Your task to perform on an android device: clear all cookies in the chrome app Image 0: 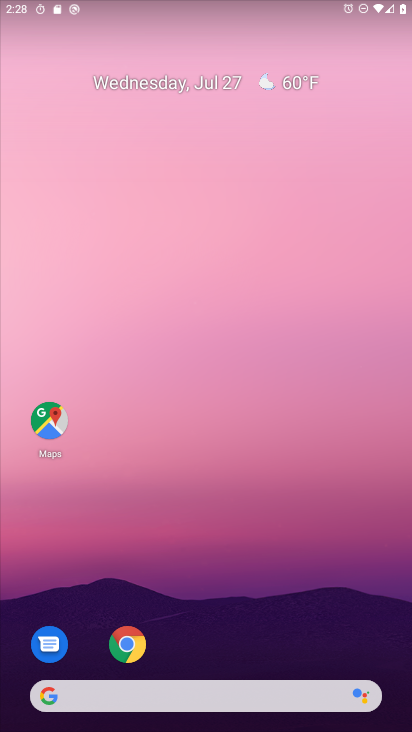
Step 0: drag from (251, 556) to (257, 111)
Your task to perform on an android device: clear all cookies in the chrome app Image 1: 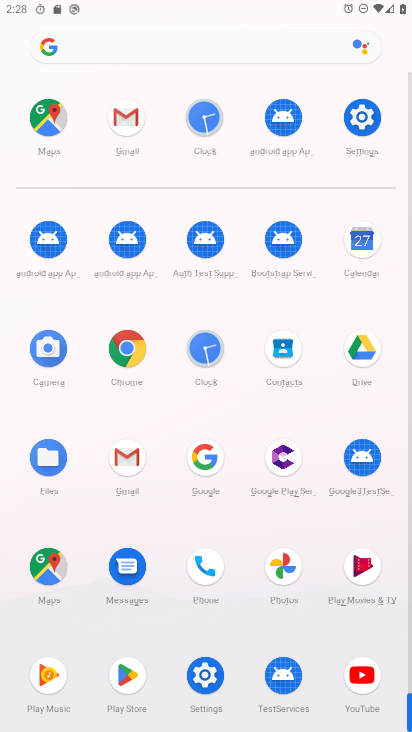
Step 1: click (113, 346)
Your task to perform on an android device: clear all cookies in the chrome app Image 2: 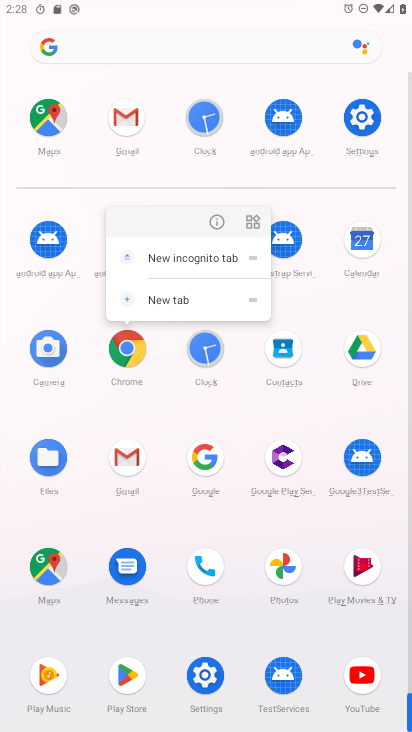
Step 2: click (211, 220)
Your task to perform on an android device: clear all cookies in the chrome app Image 3: 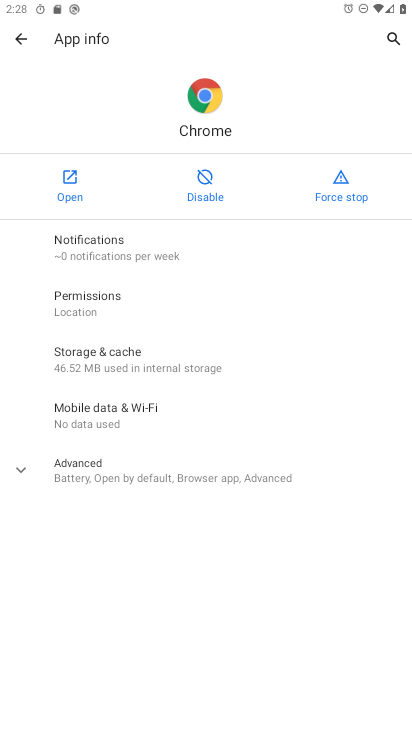
Step 3: click (76, 192)
Your task to perform on an android device: clear all cookies in the chrome app Image 4: 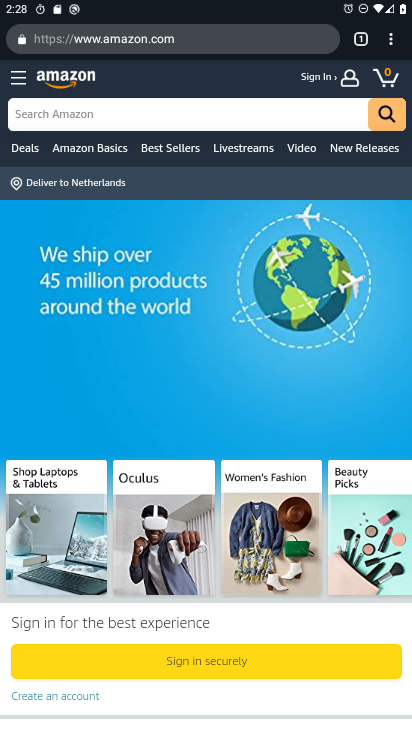
Step 4: drag from (384, 36) to (288, 521)
Your task to perform on an android device: clear all cookies in the chrome app Image 5: 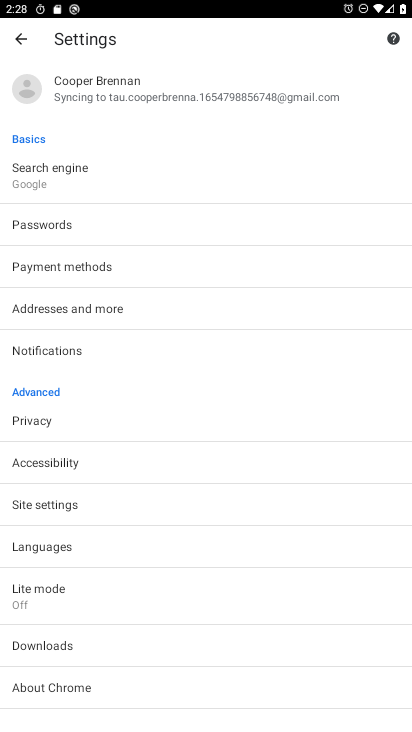
Step 5: click (19, 25)
Your task to perform on an android device: clear all cookies in the chrome app Image 6: 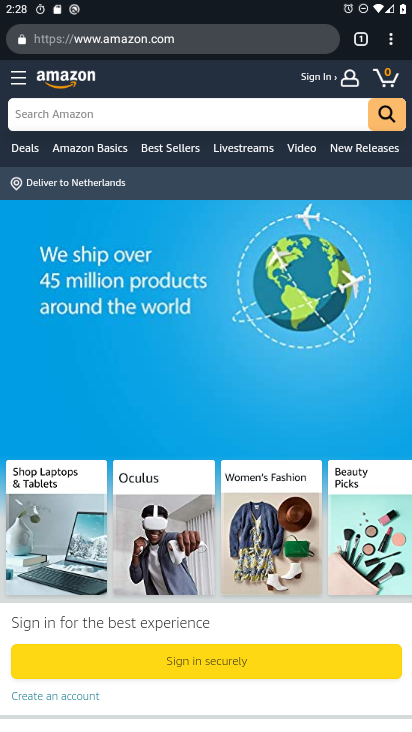
Step 6: drag from (399, 37) to (256, 275)
Your task to perform on an android device: clear all cookies in the chrome app Image 7: 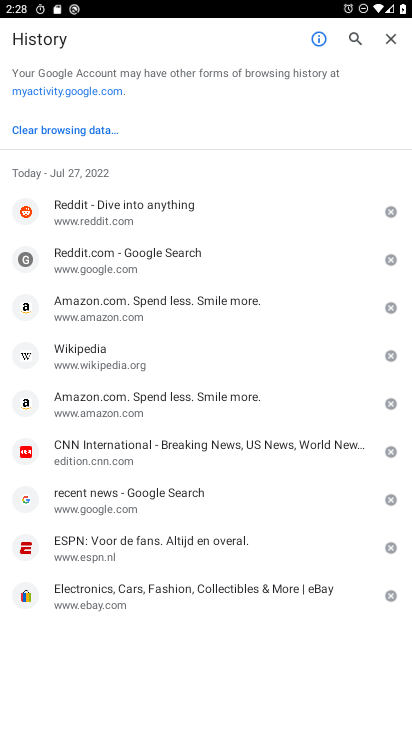
Step 7: drag from (158, 559) to (192, 319)
Your task to perform on an android device: clear all cookies in the chrome app Image 8: 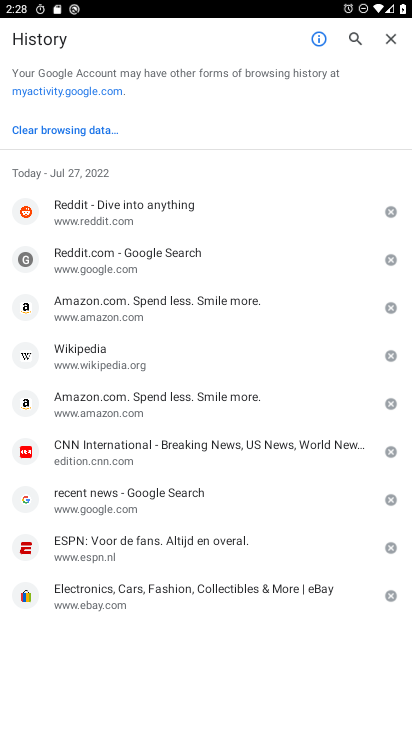
Step 8: click (56, 129)
Your task to perform on an android device: clear all cookies in the chrome app Image 9: 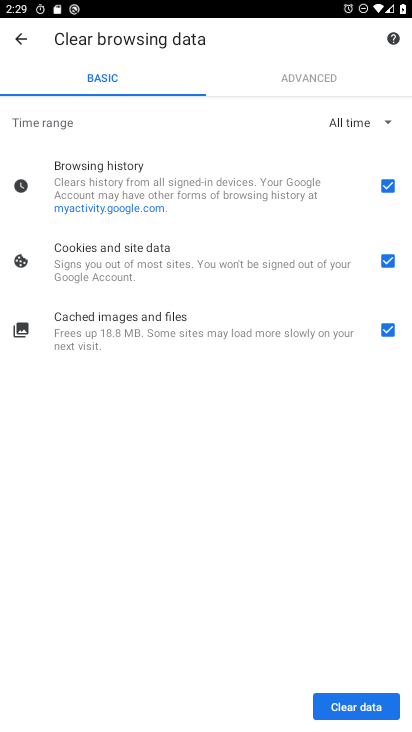
Step 9: click (342, 701)
Your task to perform on an android device: clear all cookies in the chrome app Image 10: 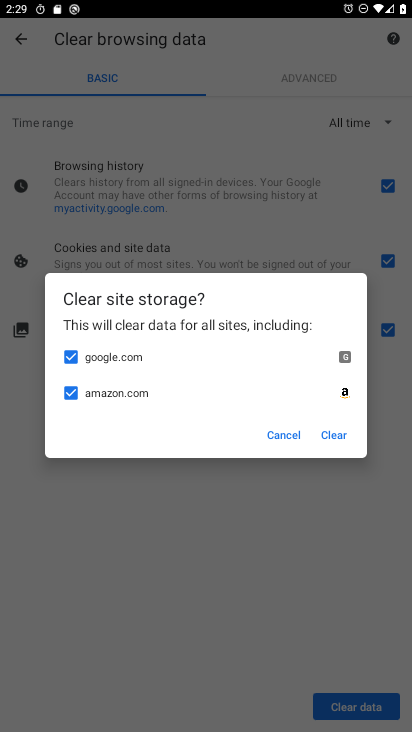
Step 10: click (296, 438)
Your task to perform on an android device: clear all cookies in the chrome app Image 11: 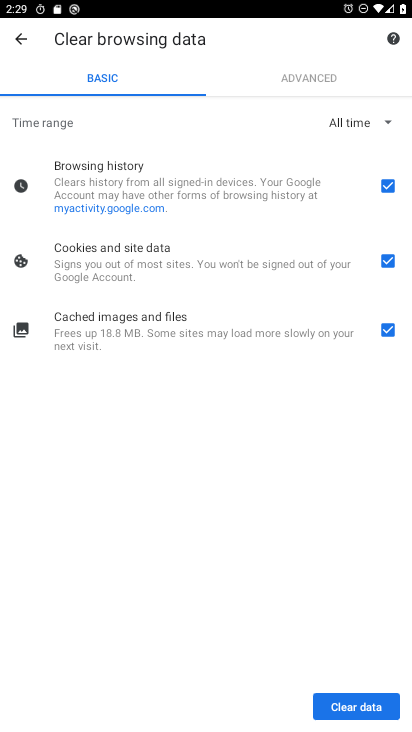
Step 11: click (393, 175)
Your task to perform on an android device: clear all cookies in the chrome app Image 12: 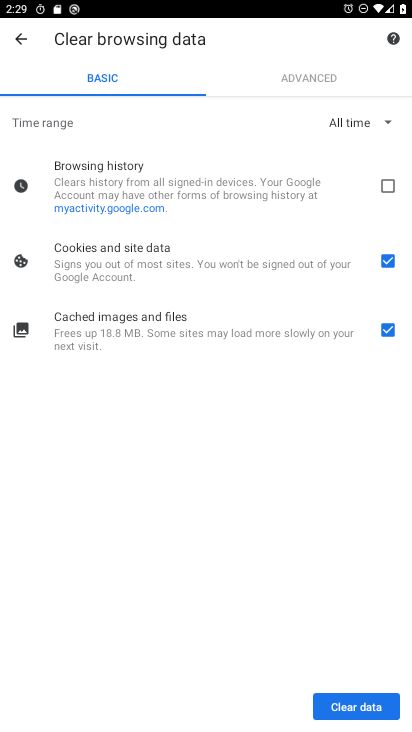
Step 12: click (385, 336)
Your task to perform on an android device: clear all cookies in the chrome app Image 13: 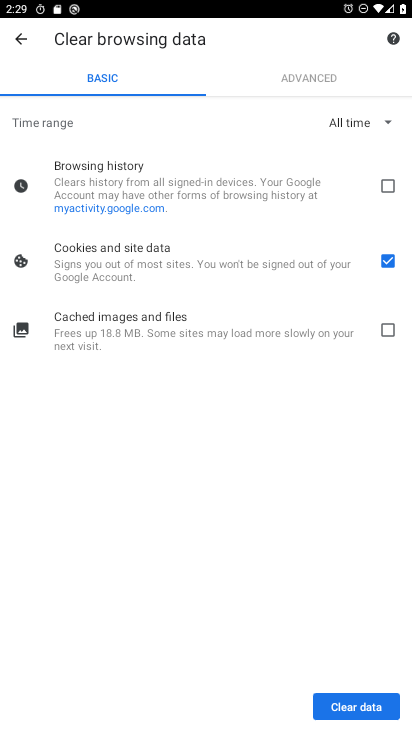
Step 13: click (356, 707)
Your task to perform on an android device: clear all cookies in the chrome app Image 14: 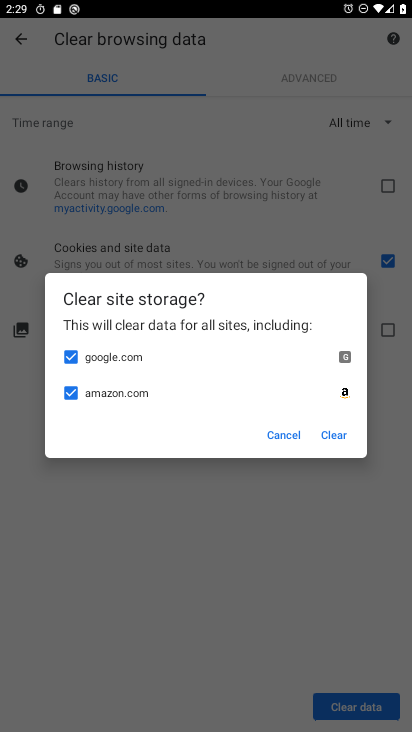
Step 14: click (339, 430)
Your task to perform on an android device: clear all cookies in the chrome app Image 15: 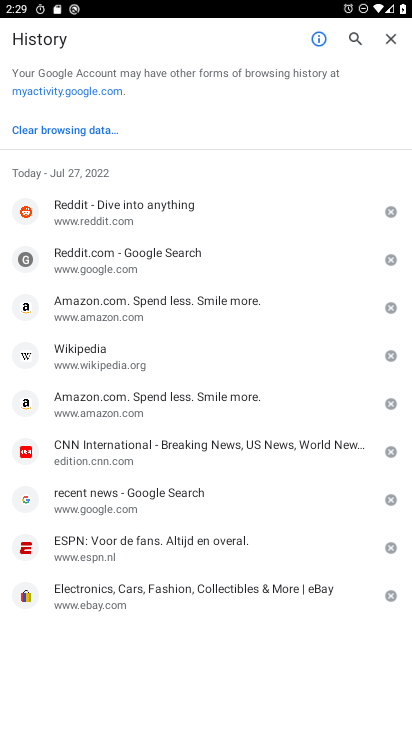
Step 15: drag from (152, 597) to (224, 253)
Your task to perform on an android device: clear all cookies in the chrome app Image 16: 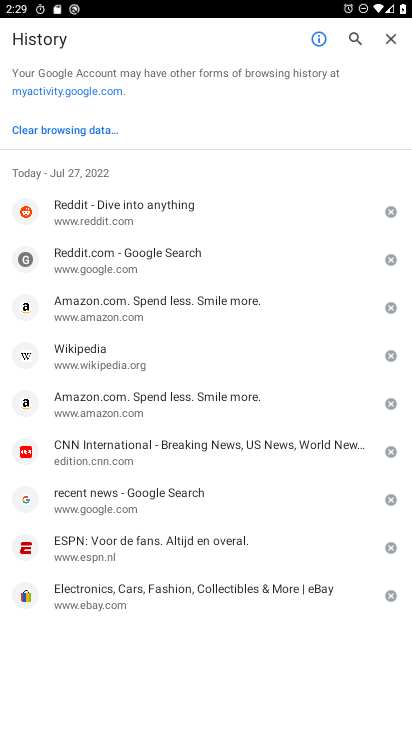
Step 16: click (40, 139)
Your task to perform on an android device: clear all cookies in the chrome app Image 17: 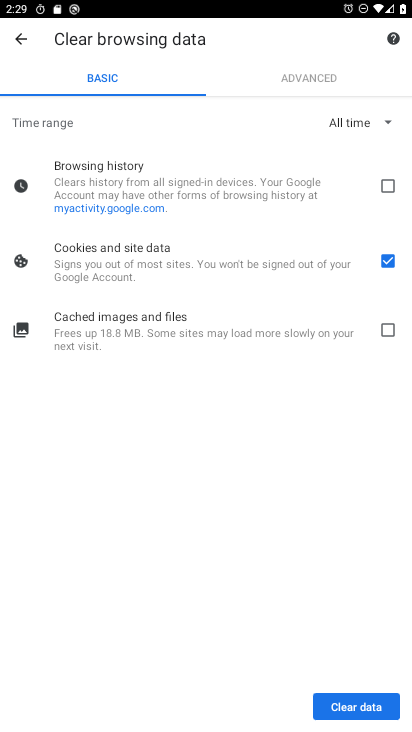
Step 17: click (348, 714)
Your task to perform on an android device: clear all cookies in the chrome app Image 18: 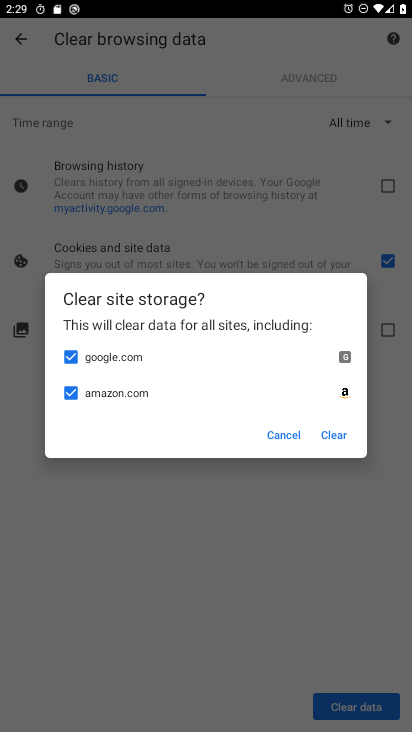
Step 18: click (321, 436)
Your task to perform on an android device: clear all cookies in the chrome app Image 19: 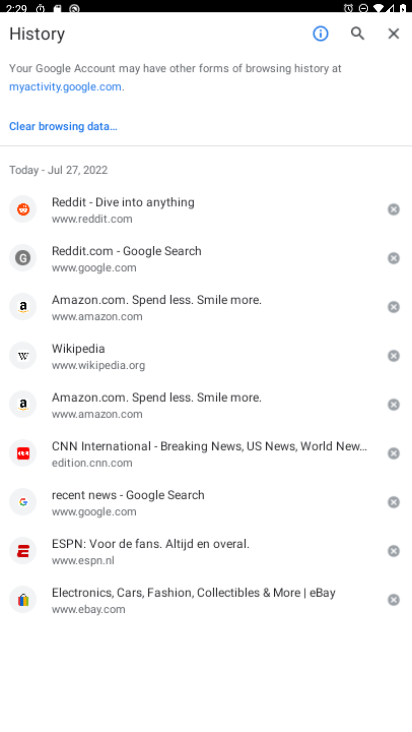
Step 19: task complete